Your task to perform on an android device: Open the map Image 0: 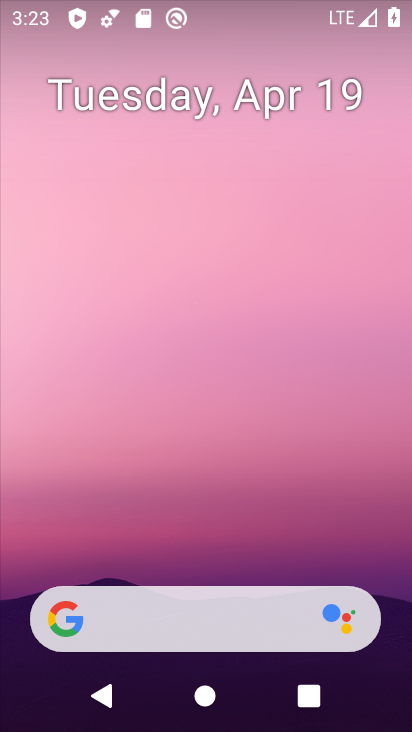
Step 0: drag from (250, 555) to (354, 55)
Your task to perform on an android device: Open the map Image 1: 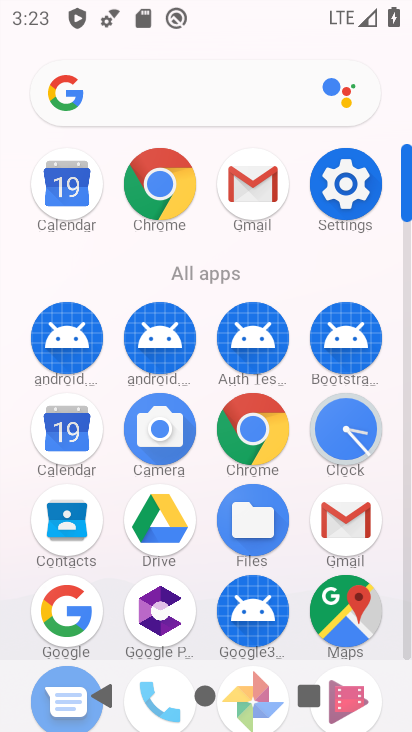
Step 1: drag from (201, 482) to (216, 331)
Your task to perform on an android device: Open the map Image 2: 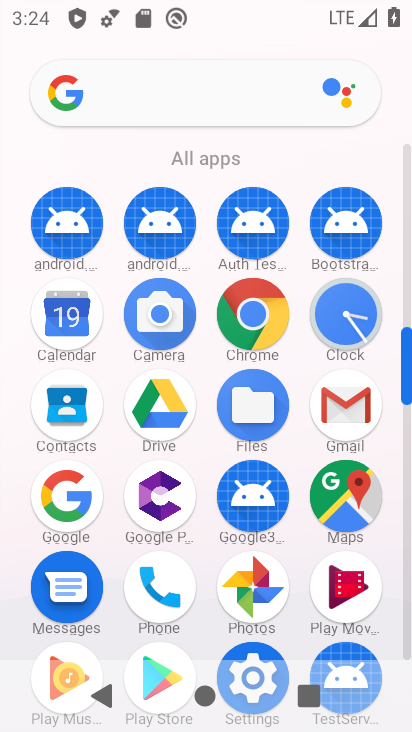
Step 2: click (347, 491)
Your task to perform on an android device: Open the map Image 3: 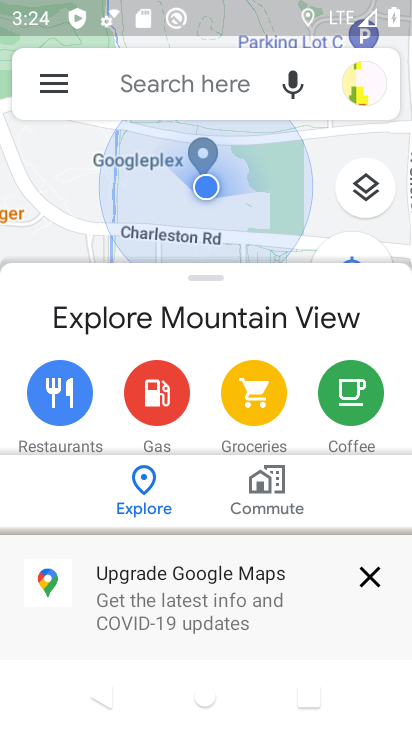
Step 3: task complete